Your task to perform on an android device: Open my contact list Image 0: 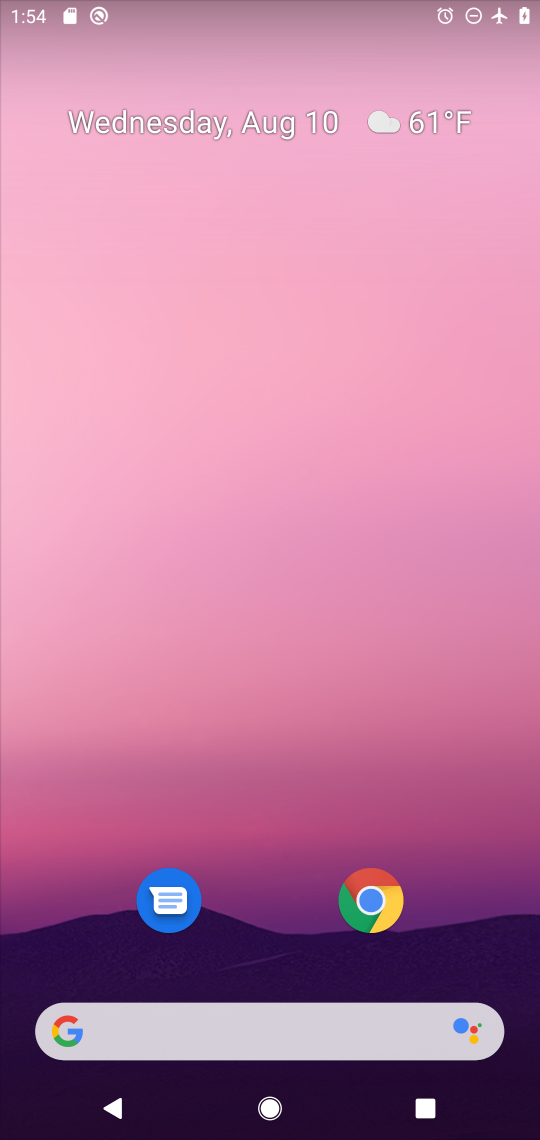
Step 0: drag from (254, 937) to (313, 0)
Your task to perform on an android device: Open my contact list Image 1: 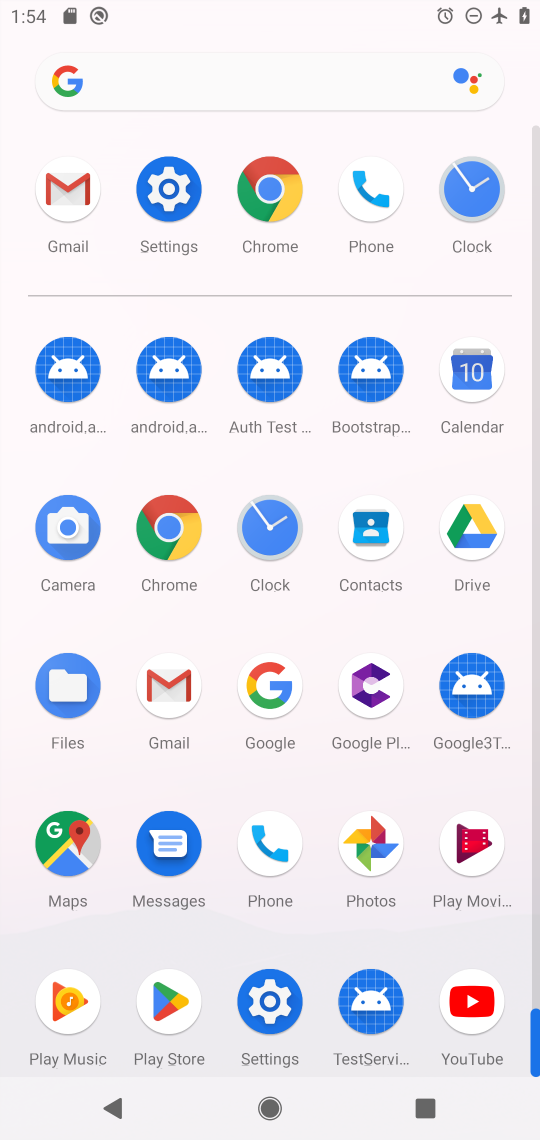
Step 1: click (362, 518)
Your task to perform on an android device: Open my contact list Image 2: 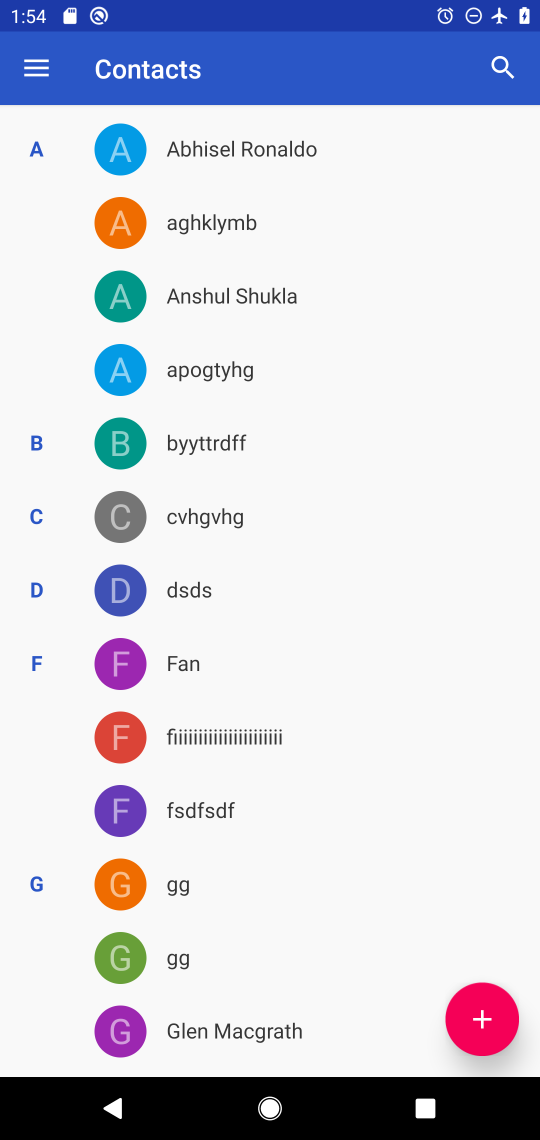
Step 2: task complete